Your task to perform on an android device: check data usage Image 0: 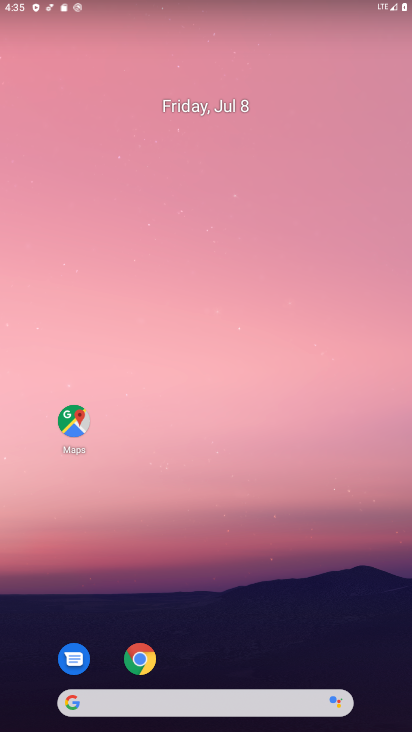
Step 0: drag from (403, 0) to (378, 727)
Your task to perform on an android device: check data usage Image 1: 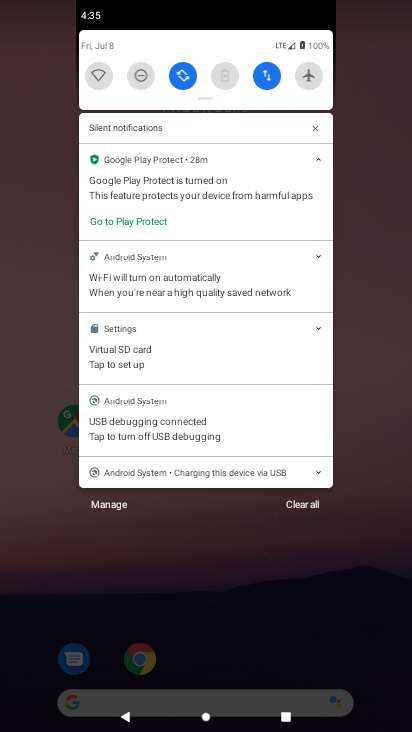
Step 1: click (273, 82)
Your task to perform on an android device: check data usage Image 2: 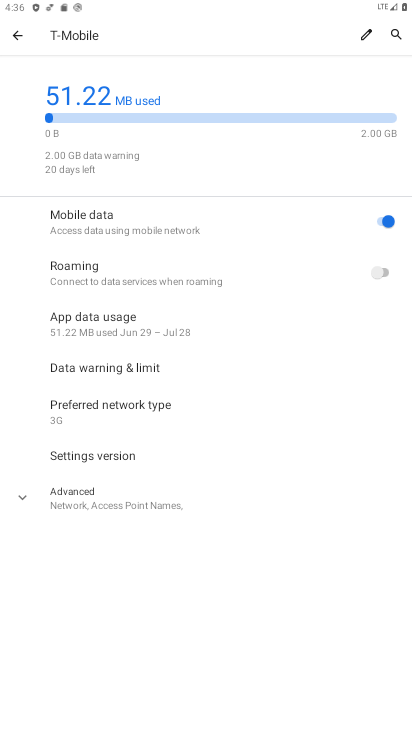
Step 2: task complete